Your task to perform on an android device: Open ESPN.com Image 0: 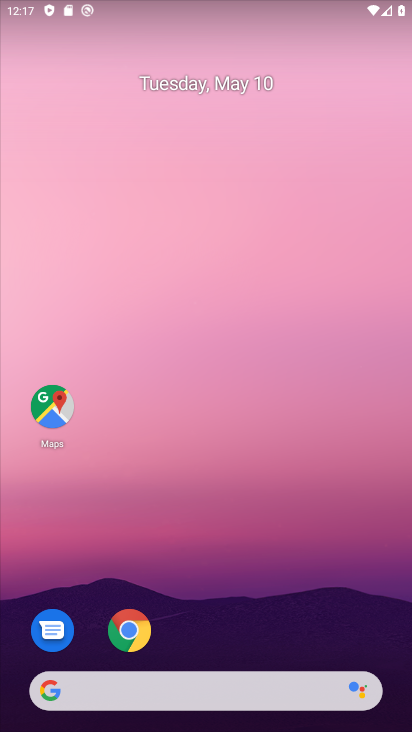
Step 0: click (127, 633)
Your task to perform on an android device: Open ESPN.com Image 1: 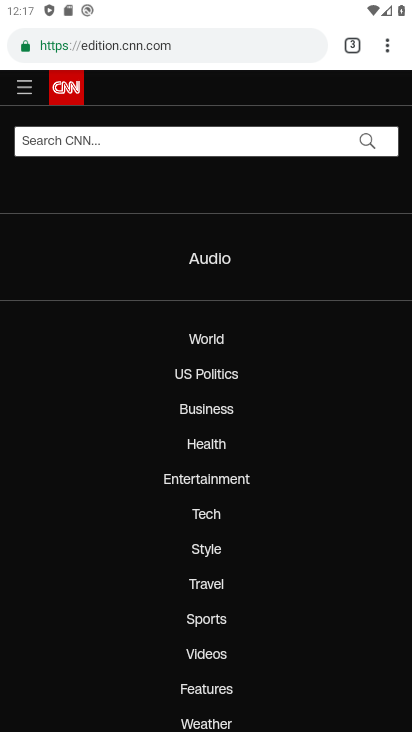
Step 1: click (387, 47)
Your task to perform on an android device: Open ESPN.com Image 2: 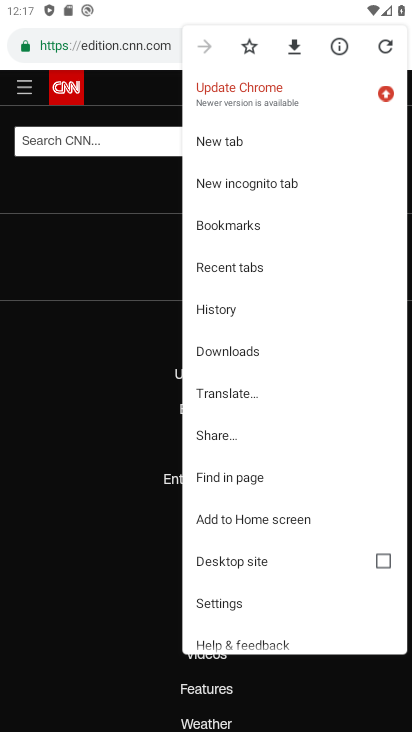
Step 2: click (210, 141)
Your task to perform on an android device: Open ESPN.com Image 3: 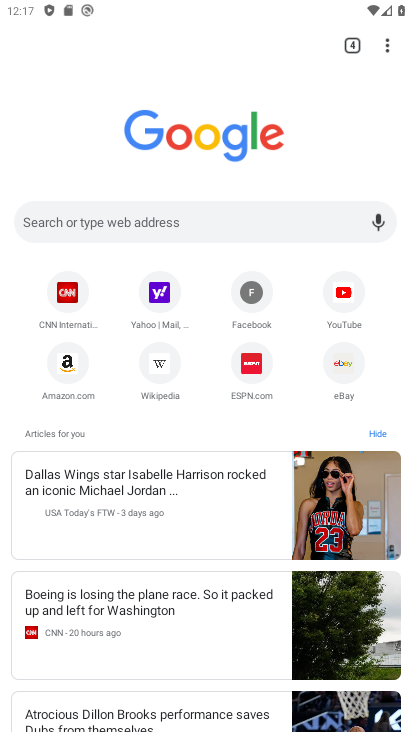
Step 3: click (191, 213)
Your task to perform on an android device: Open ESPN.com Image 4: 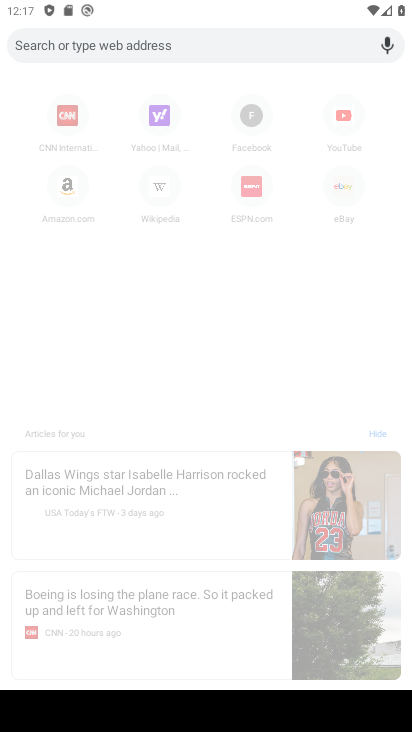
Step 4: type "ESPN.com"
Your task to perform on an android device: Open ESPN.com Image 5: 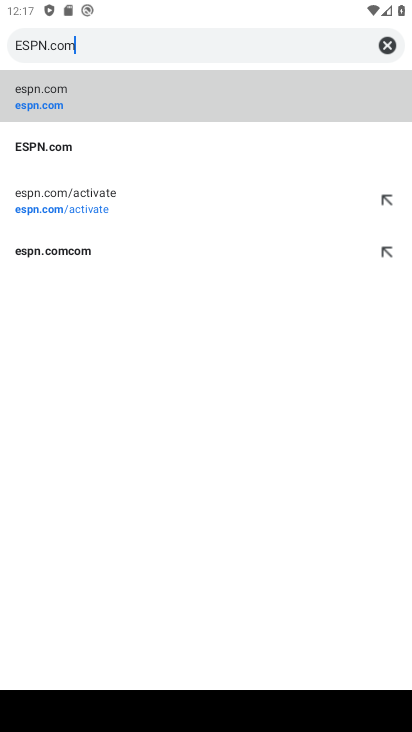
Step 5: click (56, 148)
Your task to perform on an android device: Open ESPN.com Image 6: 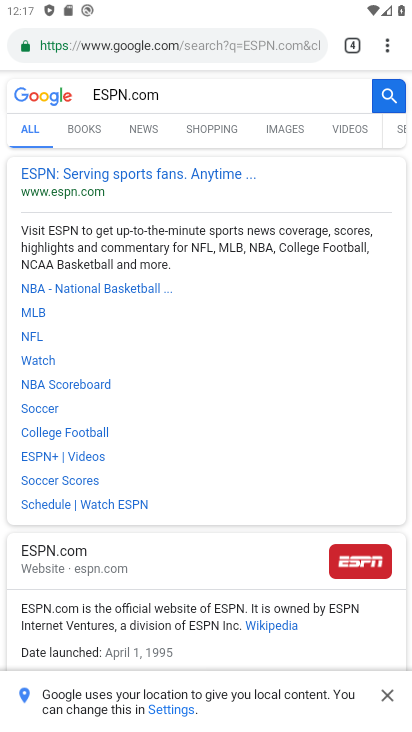
Step 6: click (85, 168)
Your task to perform on an android device: Open ESPN.com Image 7: 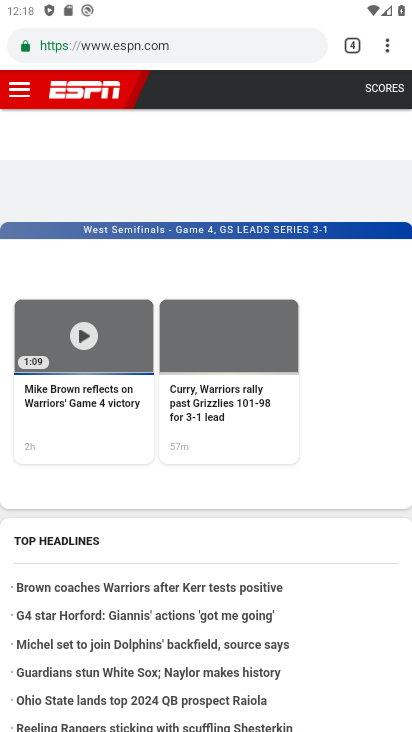
Step 7: task complete